Your task to perform on an android device: toggle javascript in the chrome app Image 0: 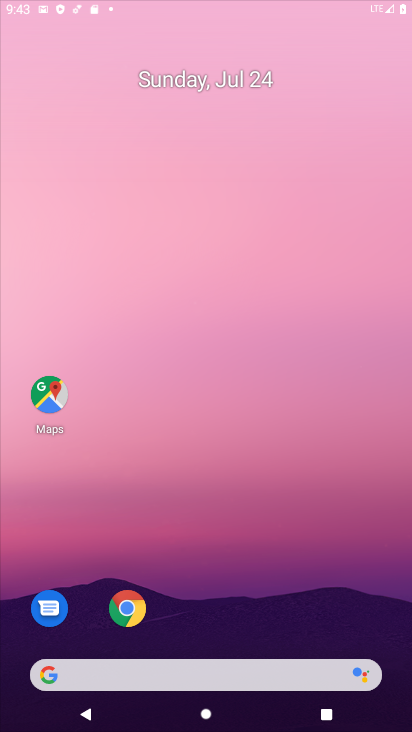
Step 0: press home button
Your task to perform on an android device: toggle javascript in the chrome app Image 1: 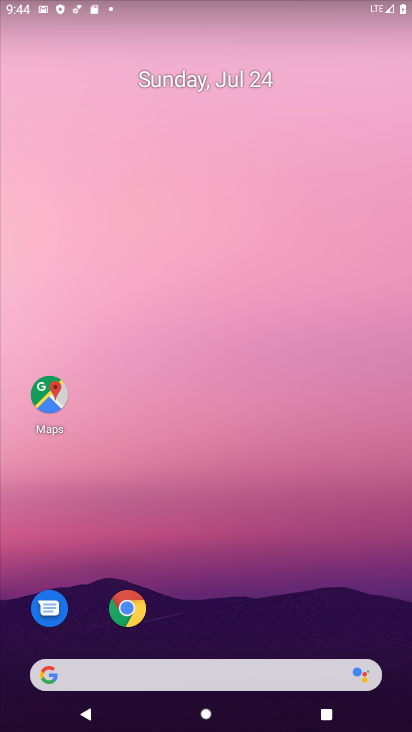
Step 1: click (127, 603)
Your task to perform on an android device: toggle javascript in the chrome app Image 2: 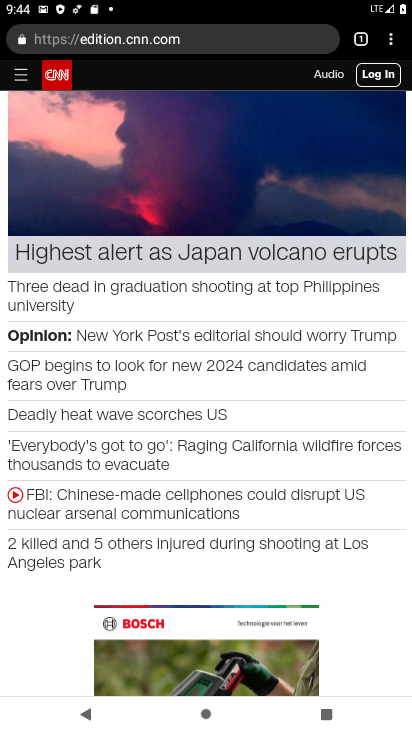
Step 2: click (389, 40)
Your task to perform on an android device: toggle javascript in the chrome app Image 3: 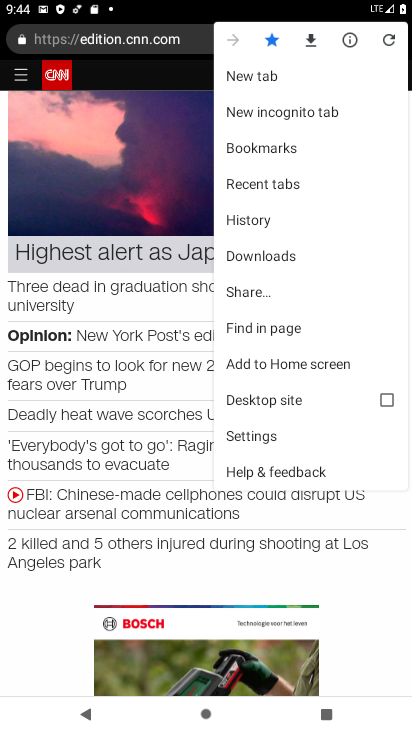
Step 3: click (285, 435)
Your task to perform on an android device: toggle javascript in the chrome app Image 4: 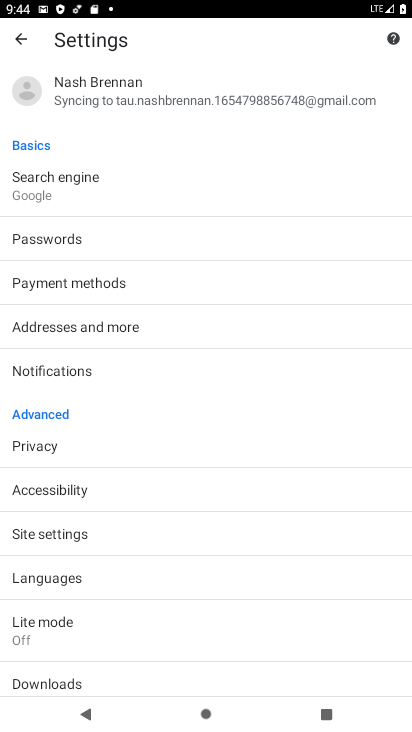
Step 4: click (99, 532)
Your task to perform on an android device: toggle javascript in the chrome app Image 5: 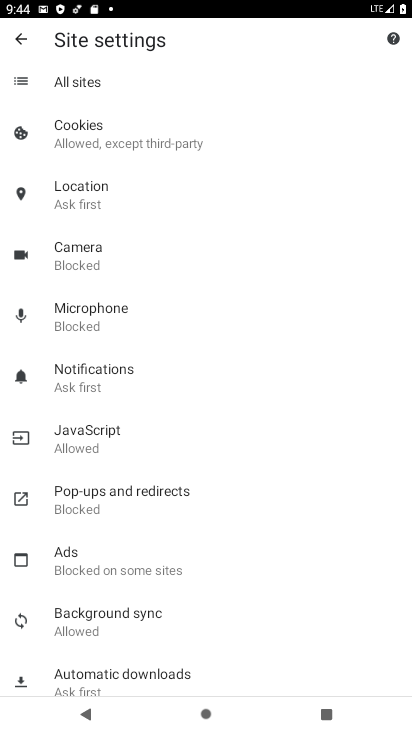
Step 5: click (137, 437)
Your task to perform on an android device: toggle javascript in the chrome app Image 6: 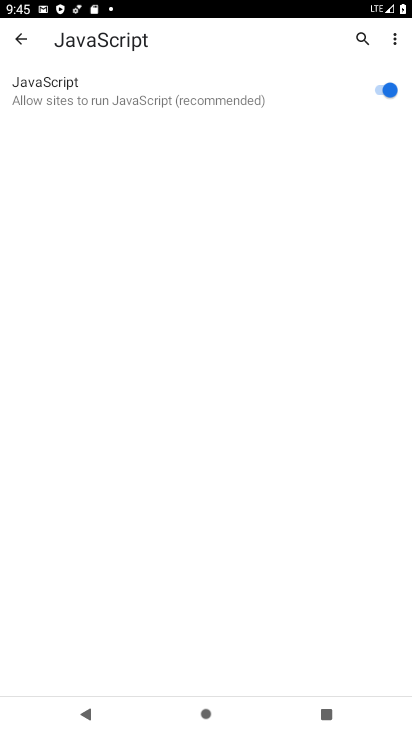
Step 6: task complete